Your task to perform on an android device: check data usage Image 0: 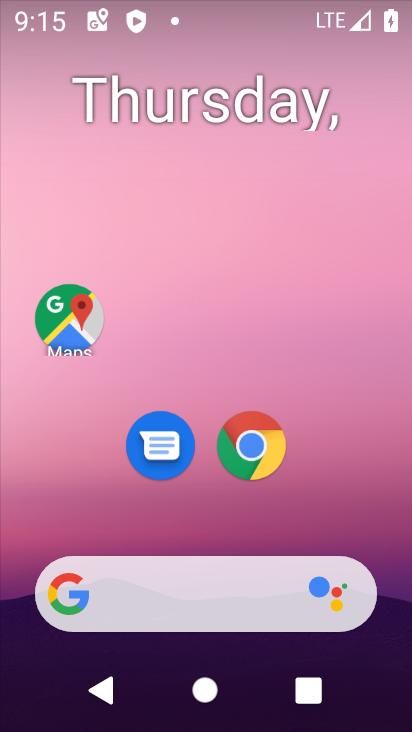
Step 0: drag from (84, 549) to (245, 97)
Your task to perform on an android device: check data usage Image 1: 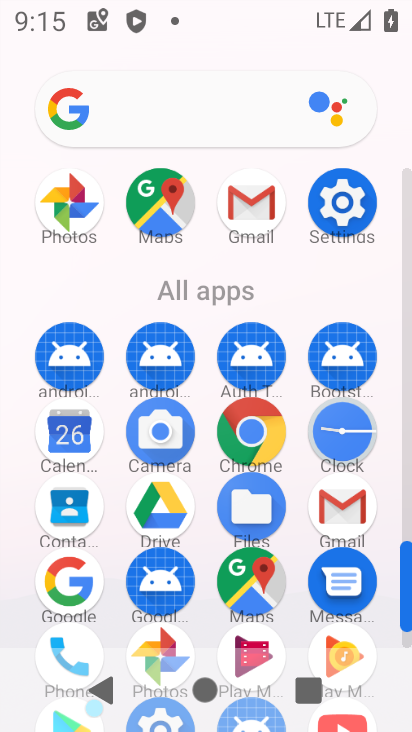
Step 1: drag from (212, 580) to (290, 243)
Your task to perform on an android device: check data usage Image 2: 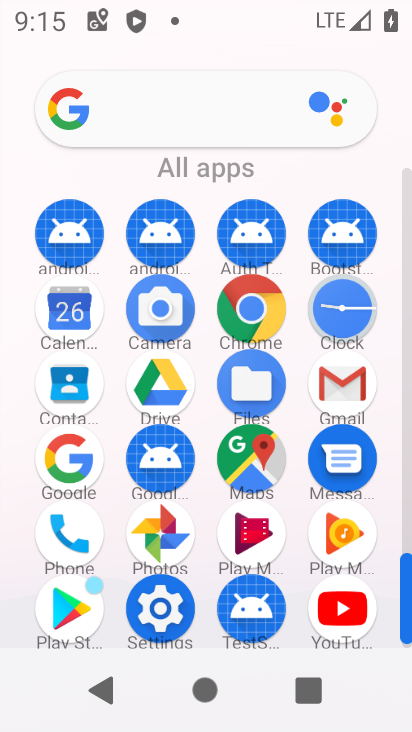
Step 2: click (168, 601)
Your task to perform on an android device: check data usage Image 3: 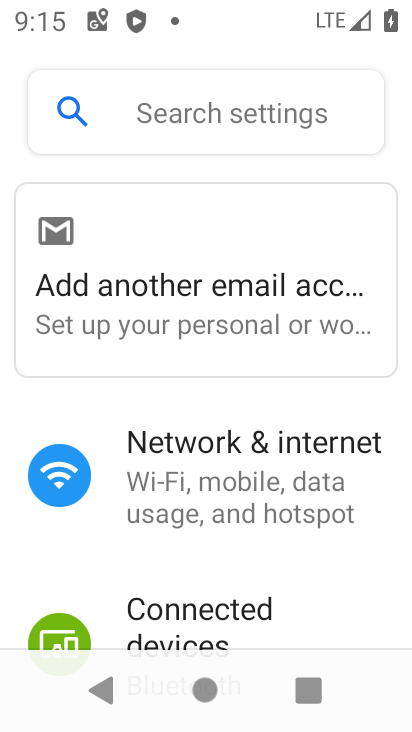
Step 3: click (209, 505)
Your task to perform on an android device: check data usage Image 4: 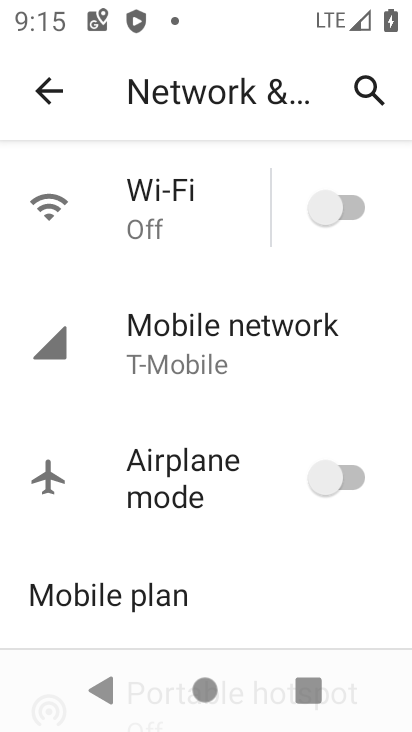
Step 4: drag from (147, 585) to (223, 313)
Your task to perform on an android device: check data usage Image 5: 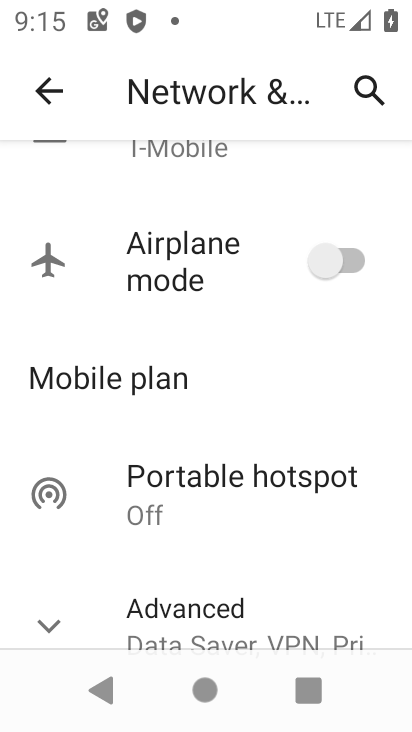
Step 5: drag from (242, 296) to (260, 580)
Your task to perform on an android device: check data usage Image 6: 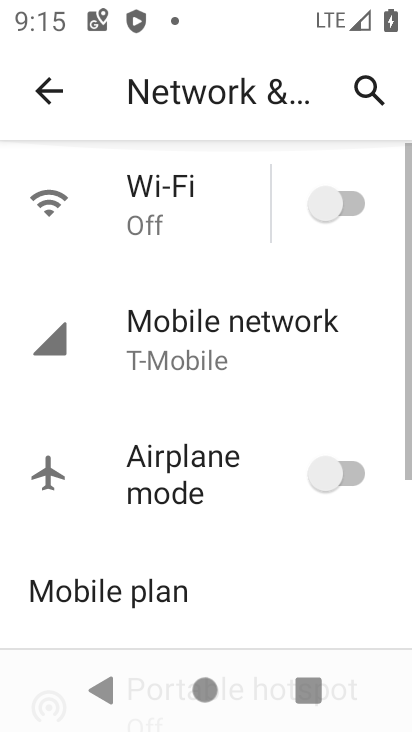
Step 6: click (215, 338)
Your task to perform on an android device: check data usage Image 7: 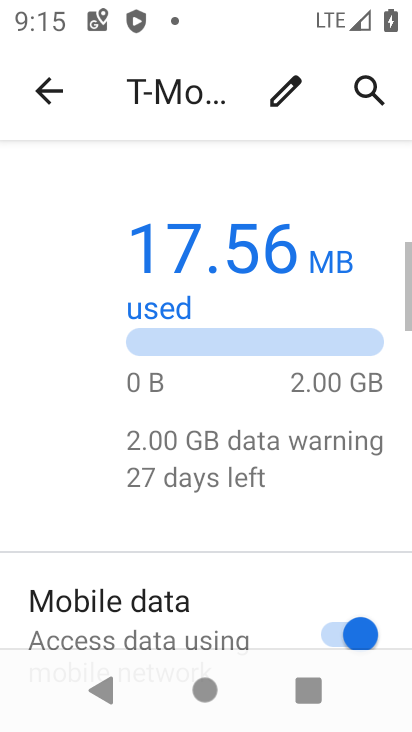
Step 7: drag from (159, 558) to (262, 143)
Your task to perform on an android device: check data usage Image 8: 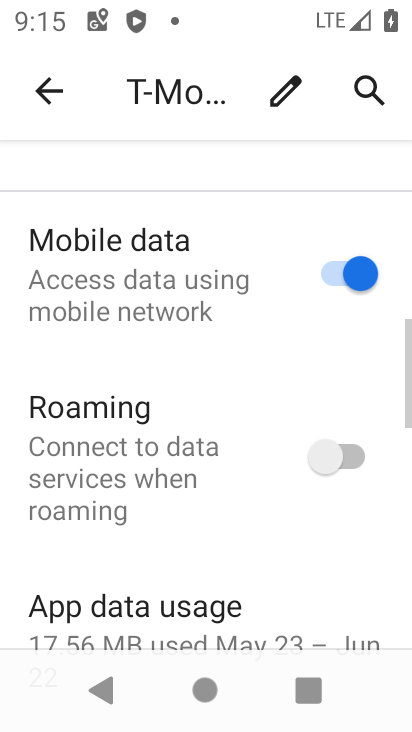
Step 8: drag from (164, 580) to (244, 240)
Your task to perform on an android device: check data usage Image 9: 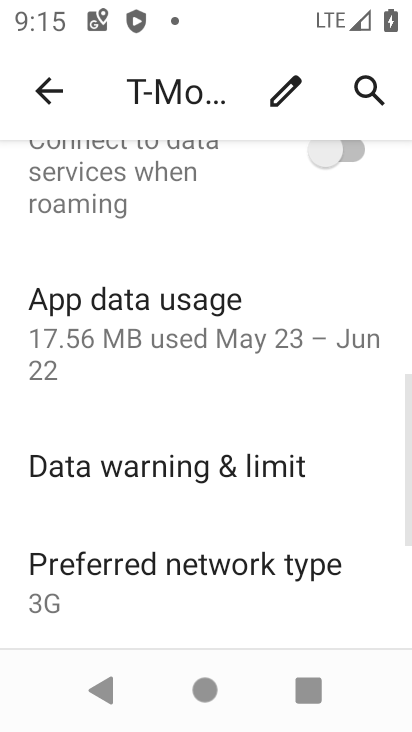
Step 9: click (194, 363)
Your task to perform on an android device: check data usage Image 10: 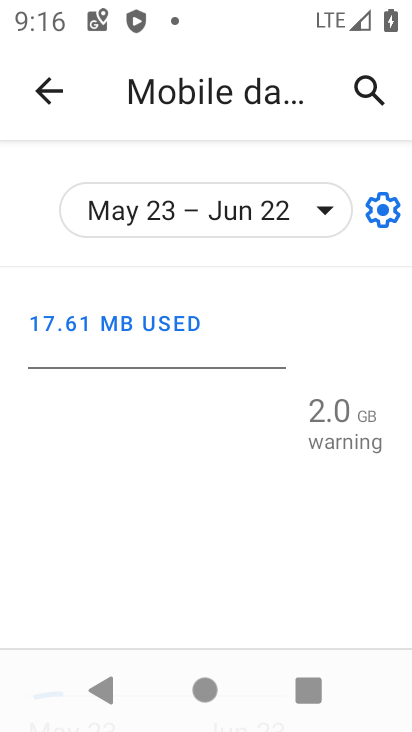
Step 10: task complete